Your task to perform on an android device: uninstall "Upside-Cash back on gas & food" Image 0: 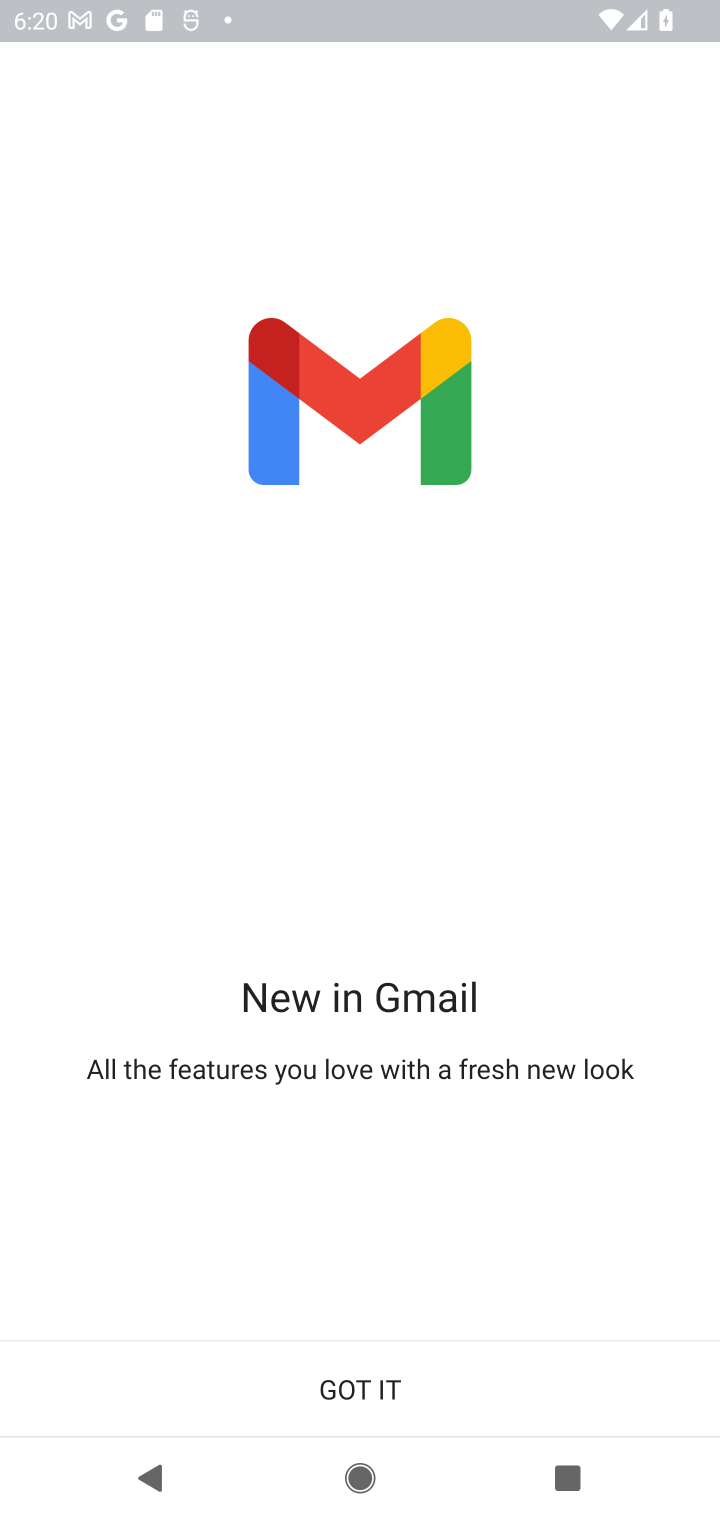
Step 0: press home button
Your task to perform on an android device: uninstall "Upside-Cash back on gas & food" Image 1: 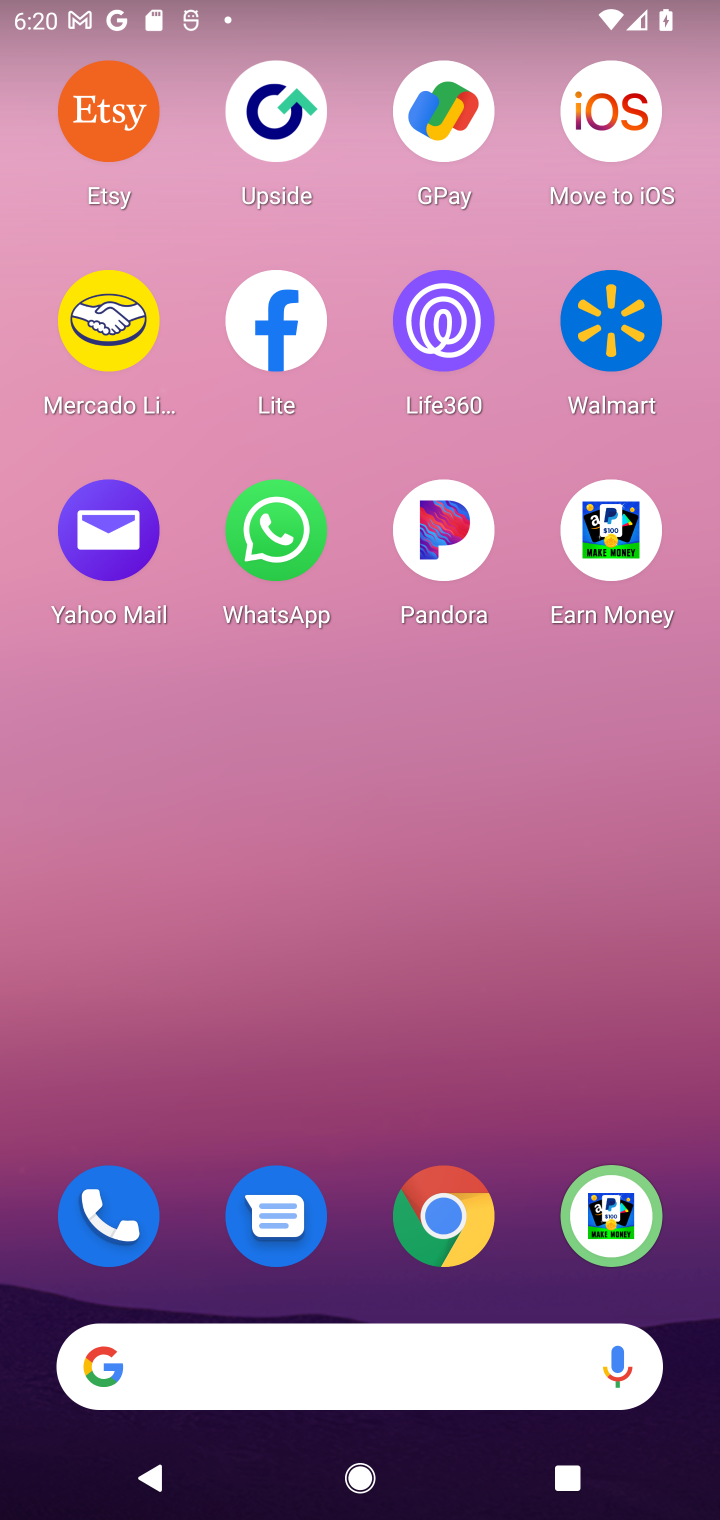
Step 1: drag from (546, 1294) to (510, 304)
Your task to perform on an android device: uninstall "Upside-Cash back on gas & food" Image 2: 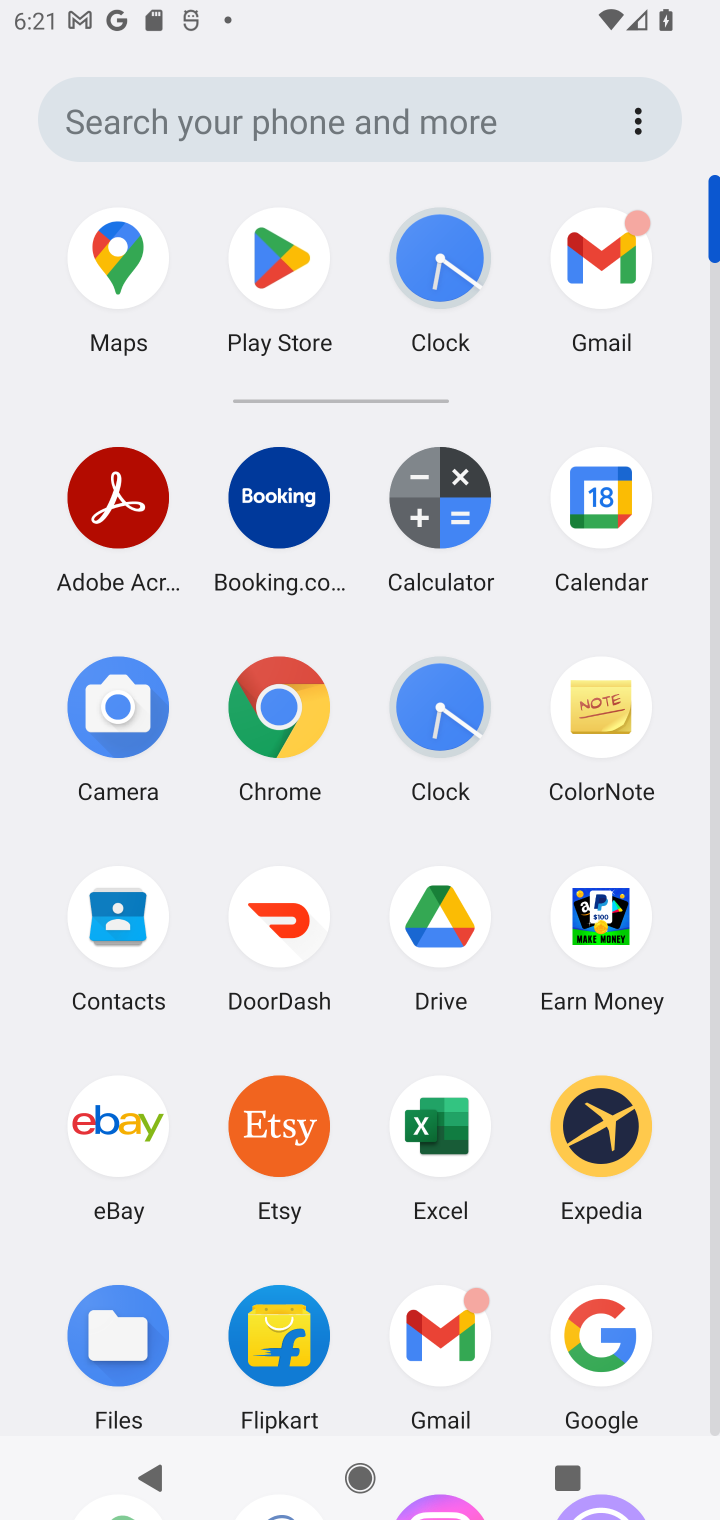
Step 2: drag from (520, 1280) to (506, 453)
Your task to perform on an android device: uninstall "Upside-Cash back on gas & food" Image 3: 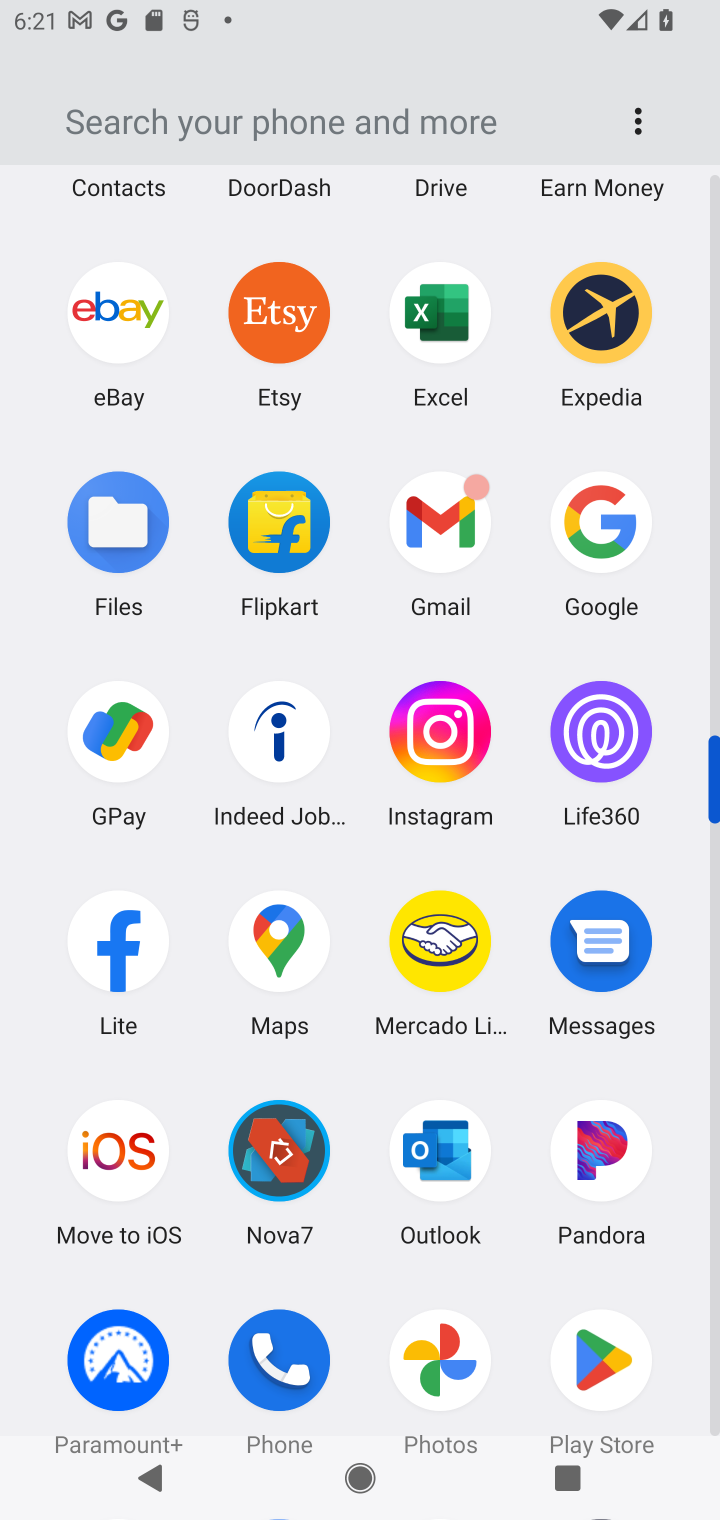
Step 3: click (604, 1364)
Your task to perform on an android device: uninstall "Upside-Cash back on gas & food" Image 4: 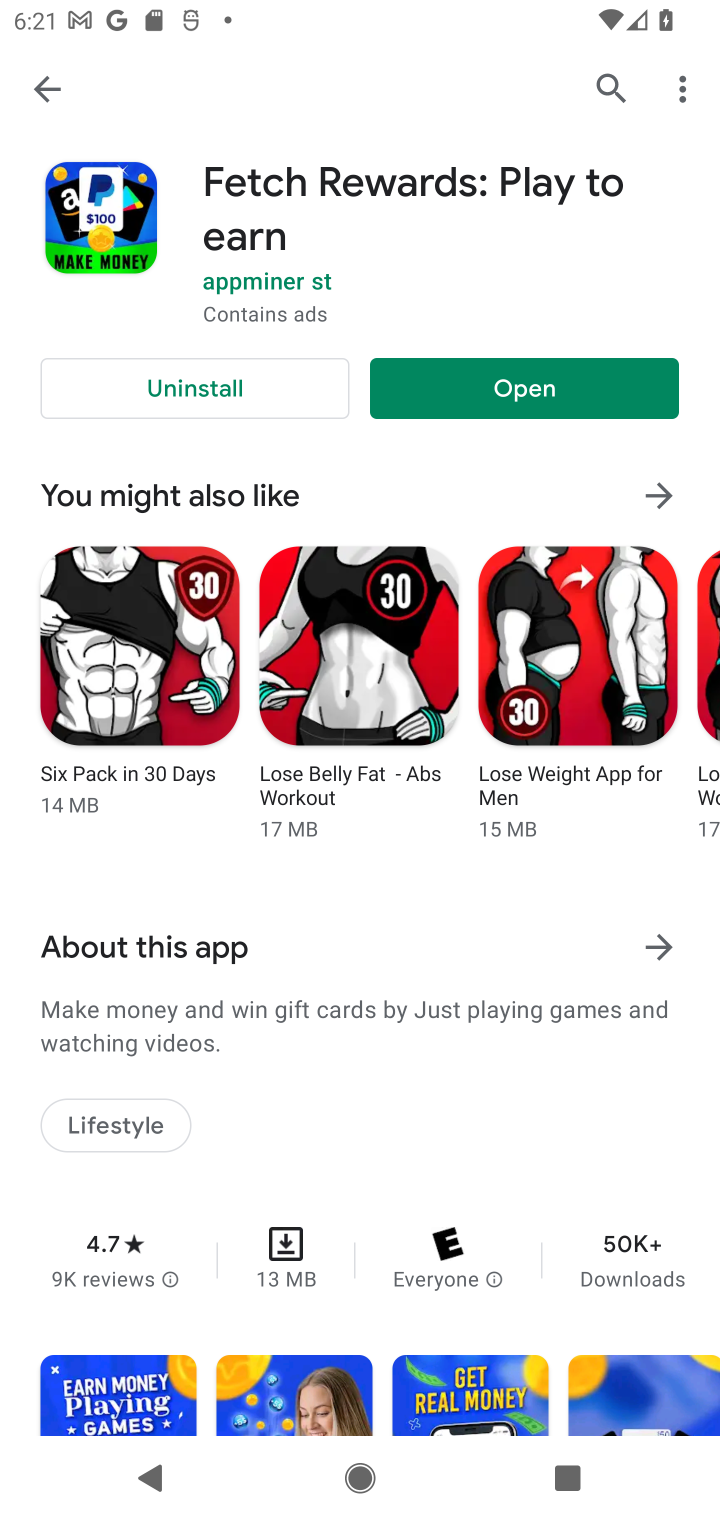
Step 4: click (601, 75)
Your task to perform on an android device: uninstall "Upside-Cash back on gas & food" Image 5: 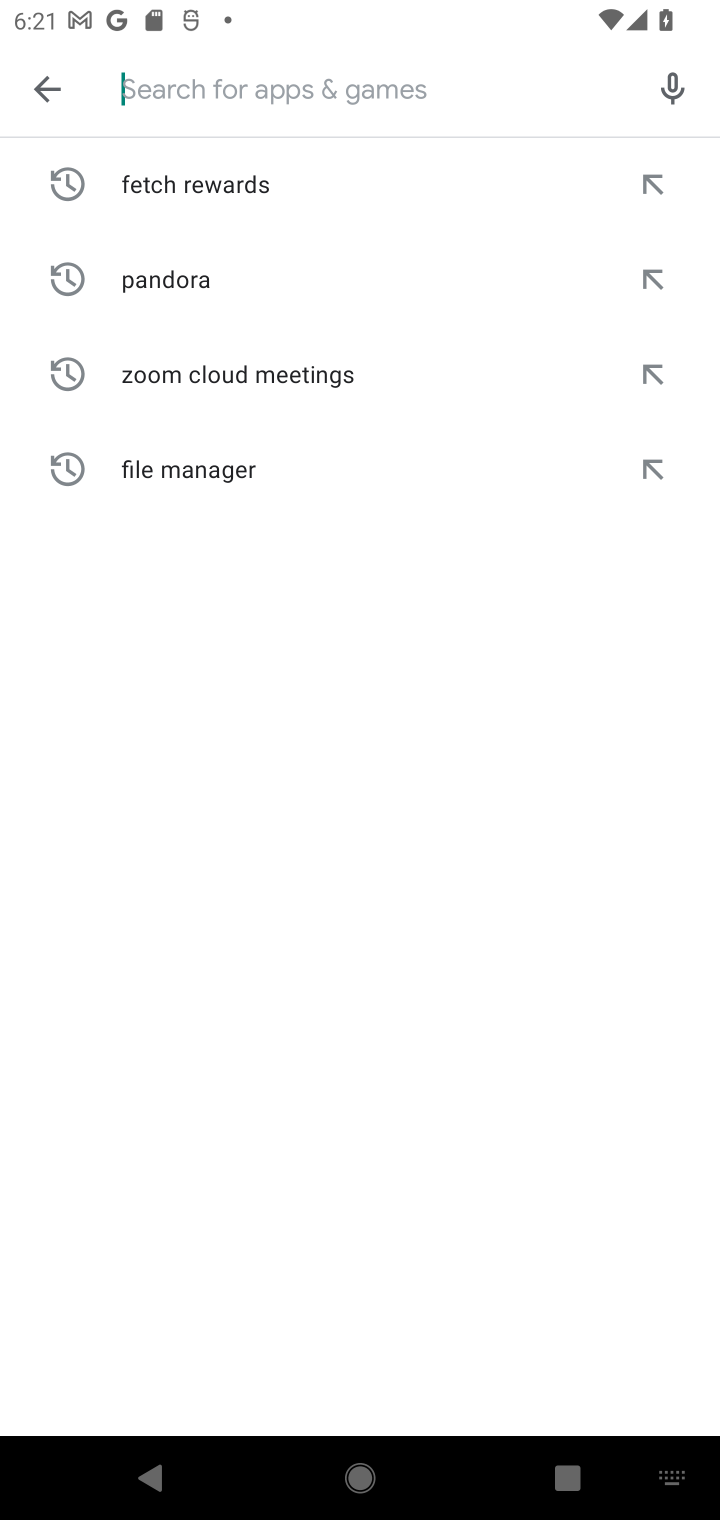
Step 5: type "Upside-Cash back on gas & food"
Your task to perform on an android device: uninstall "Upside-Cash back on gas & food" Image 6: 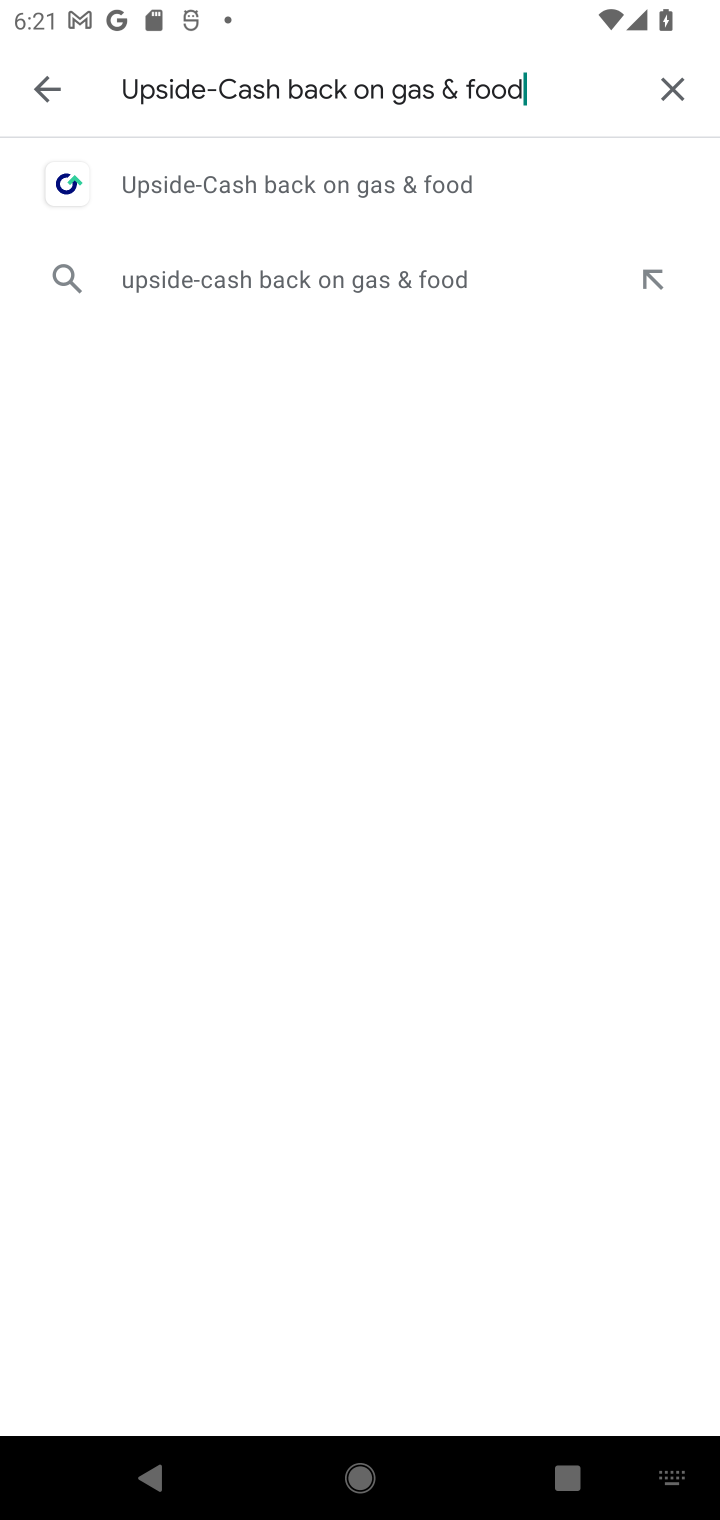
Step 6: click (227, 174)
Your task to perform on an android device: uninstall "Upside-Cash back on gas & food" Image 7: 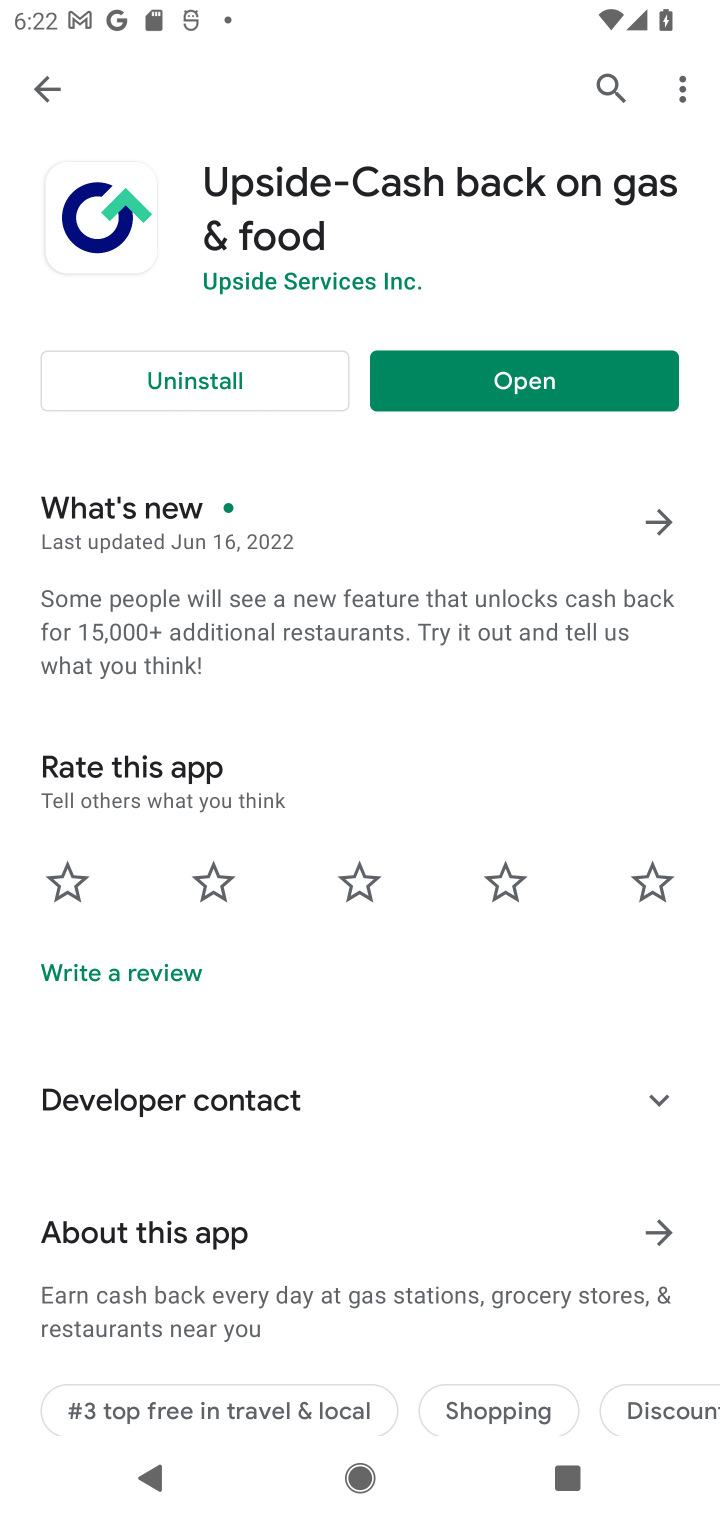
Step 7: click (175, 374)
Your task to perform on an android device: uninstall "Upside-Cash back on gas & food" Image 8: 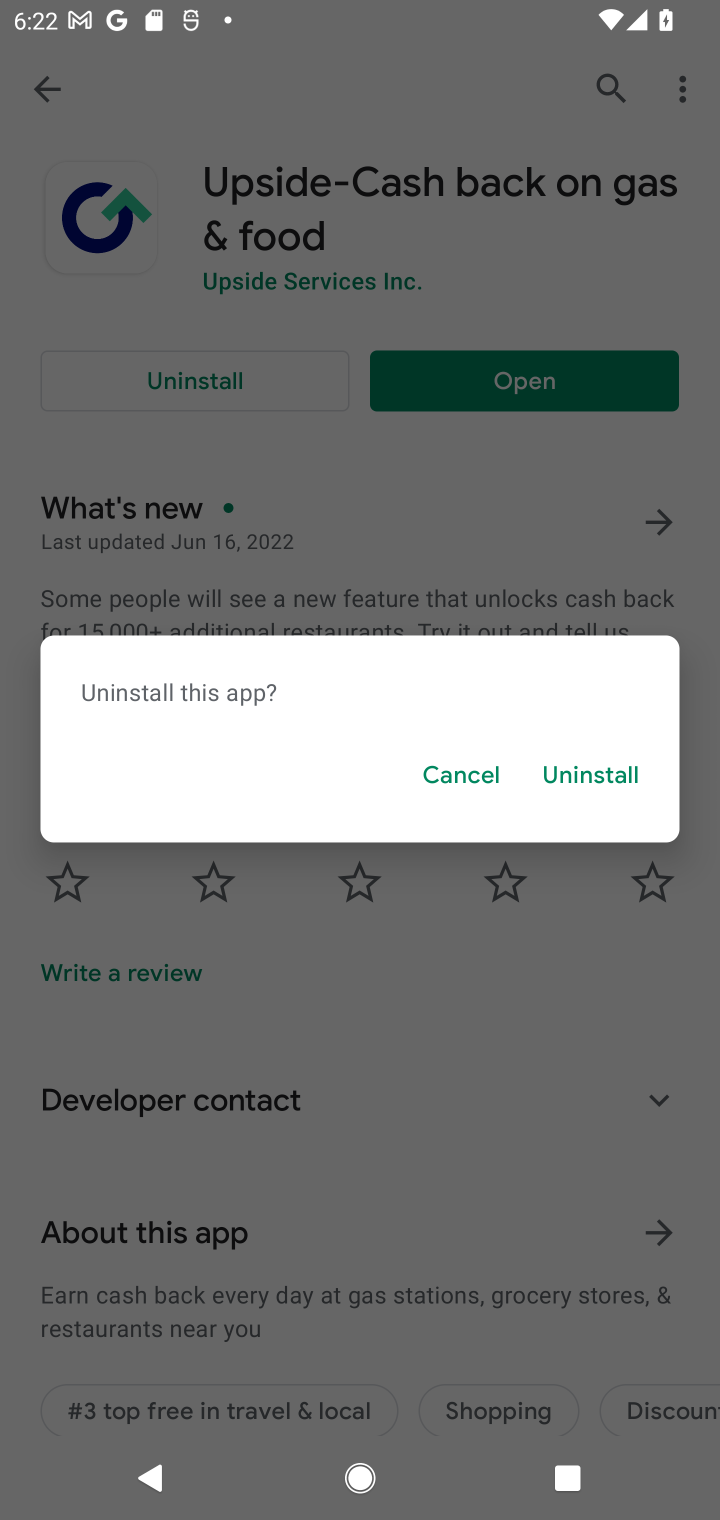
Step 8: click (572, 768)
Your task to perform on an android device: uninstall "Upside-Cash back on gas & food" Image 9: 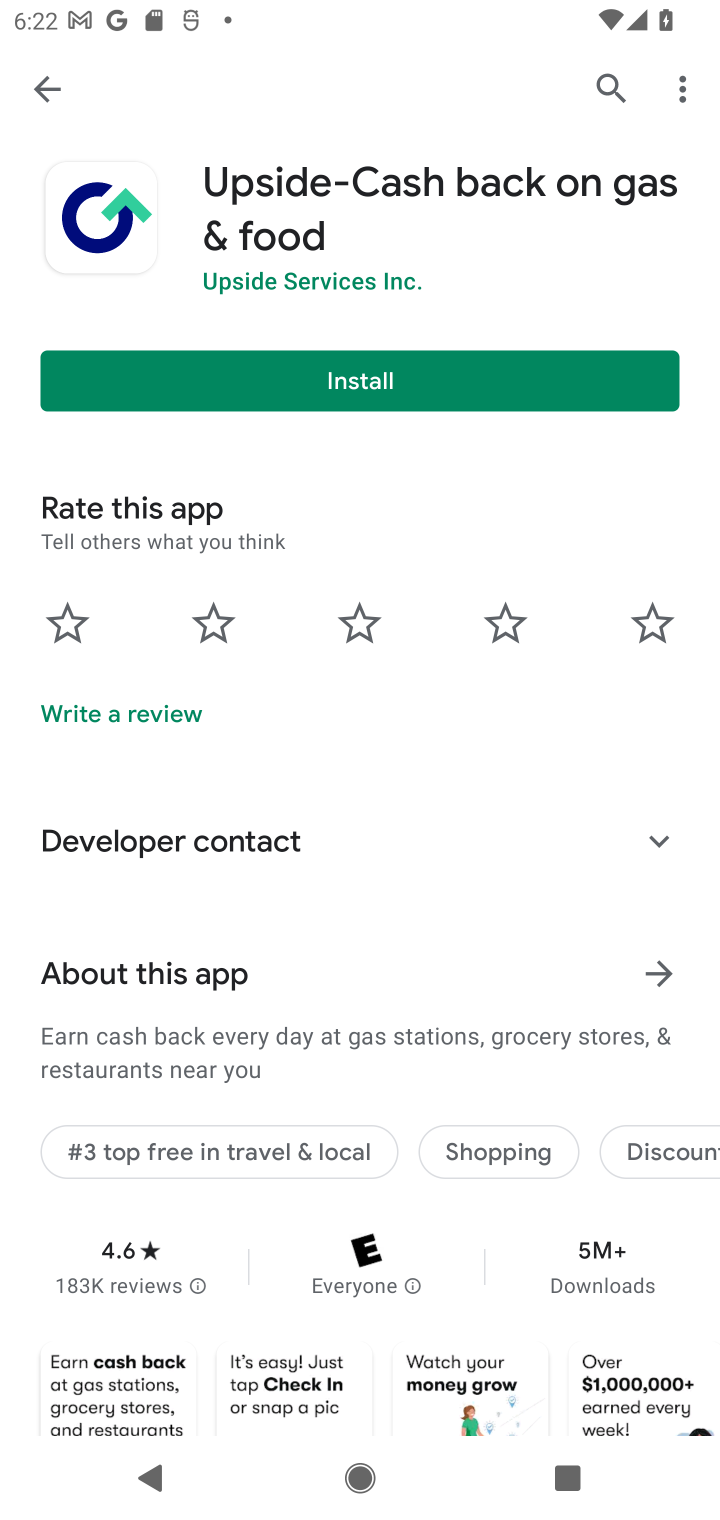
Step 9: task complete